Your task to perform on an android device: make emails show in primary in the gmail app Image 0: 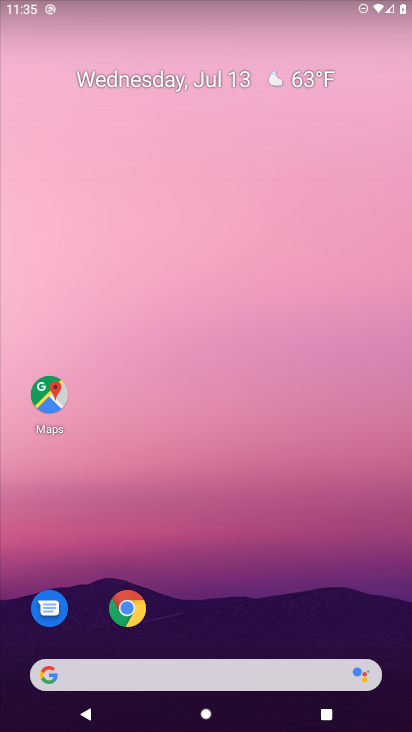
Step 0: press home button
Your task to perform on an android device: make emails show in primary in the gmail app Image 1: 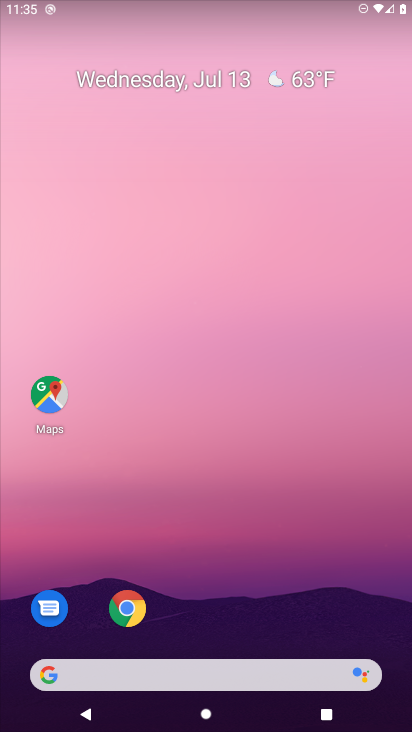
Step 1: drag from (261, 558) to (251, 127)
Your task to perform on an android device: make emails show in primary in the gmail app Image 2: 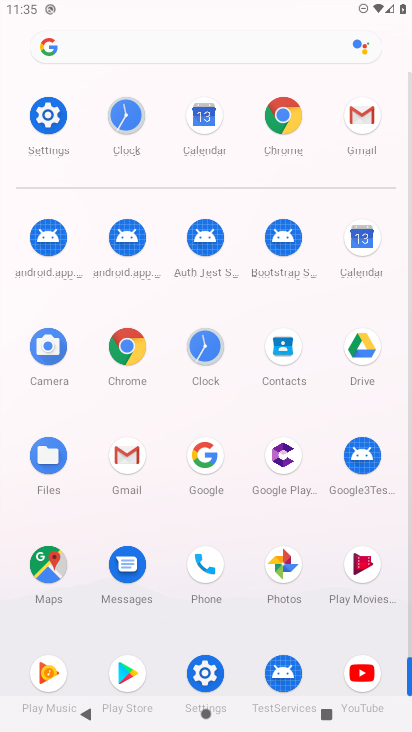
Step 2: click (351, 132)
Your task to perform on an android device: make emails show in primary in the gmail app Image 3: 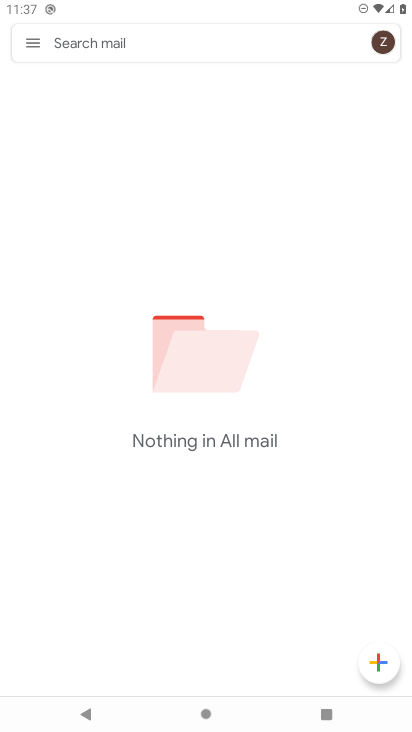
Step 3: click (28, 39)
Your task to perform on an android device: make emails show in primary in the gmail app Image 4: 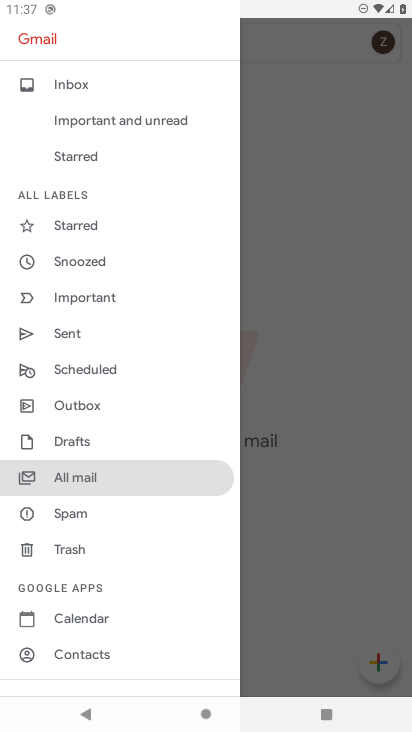
Step 4: task complete